Your task to perform on an android device: toggle javascript in the chrome app Image 0: 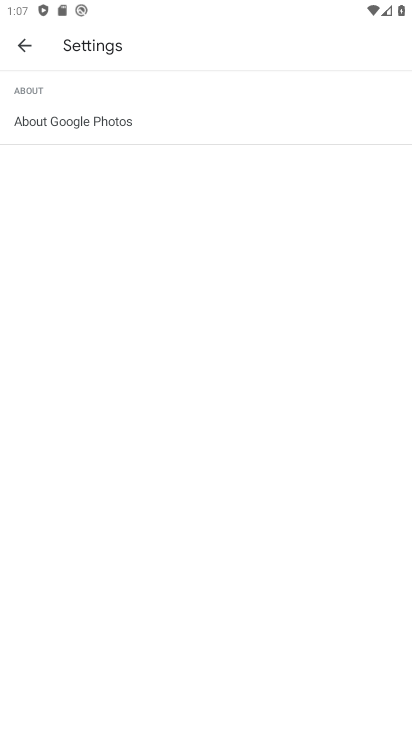
Step 0: press home button
Your task to perform on an android device: toggle javascript in the chrome app Image 1: 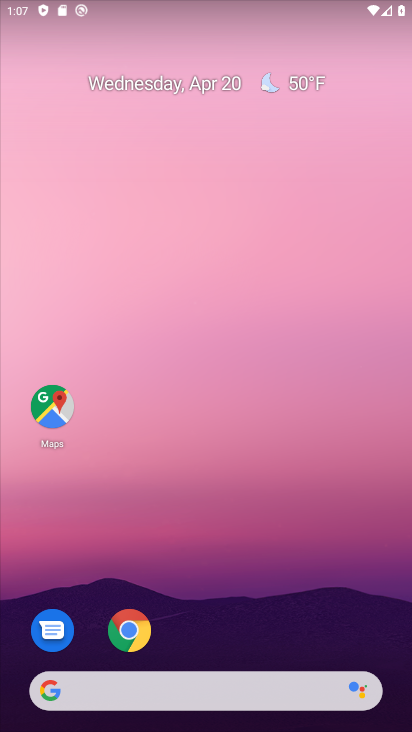
Step 1: click (123, 628)
Your task to perform on an android device: toggle javascript in the chrome app Image 2: 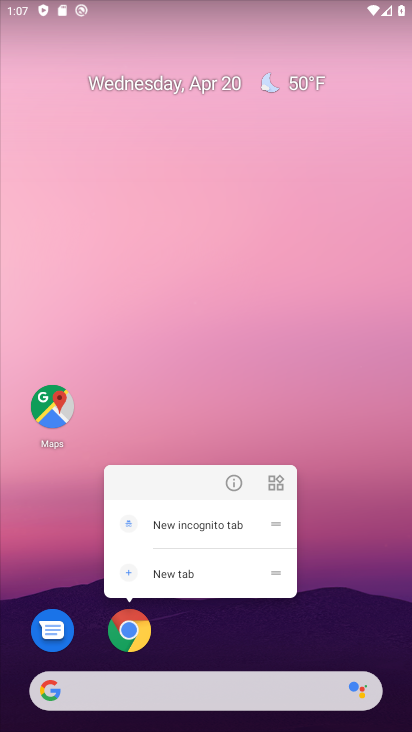
Step 2: click (123, 633)
Your task to perform on an android device: toggle javascript in the chrome app Image 3: 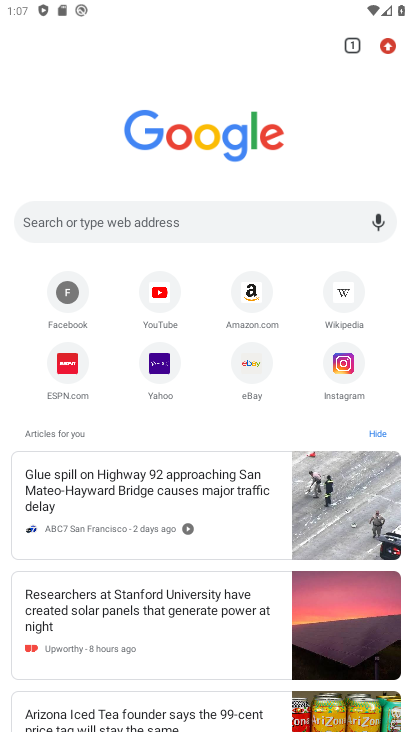
Step 3: click (383, 45)
Your task to perform on an android device: toggle javascript in the chrome app Image 4: 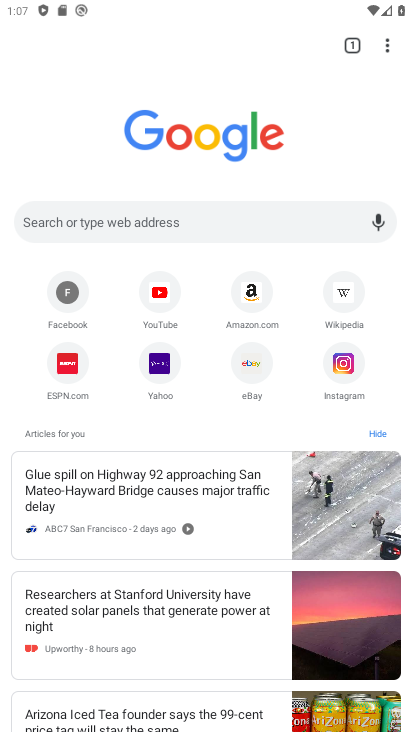
Step 4: click (383, 45)
Your task to perform on an android device: toggle javascript in the chrome app Image 5: 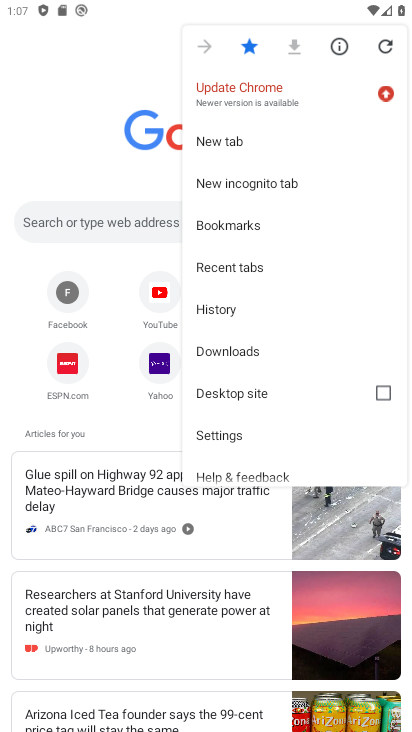
Step 5: click (241, 440)
Your task to perform on an android device: toggle javascript in the chrome app Image 6: 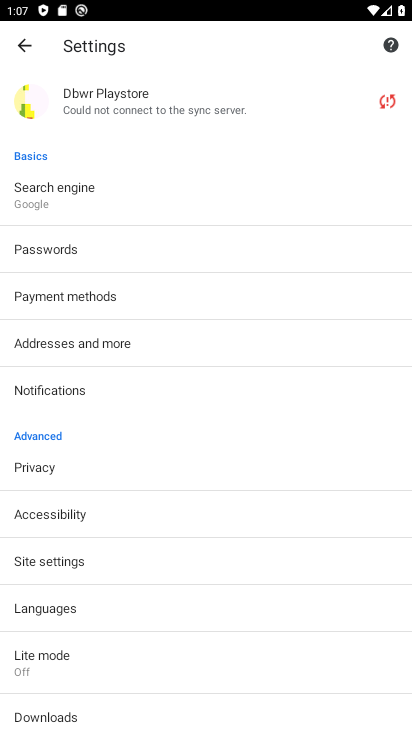
Step 6: click (65, 560)
Your task to perform on an android device: toggle javascript in the chrome app Image 7: 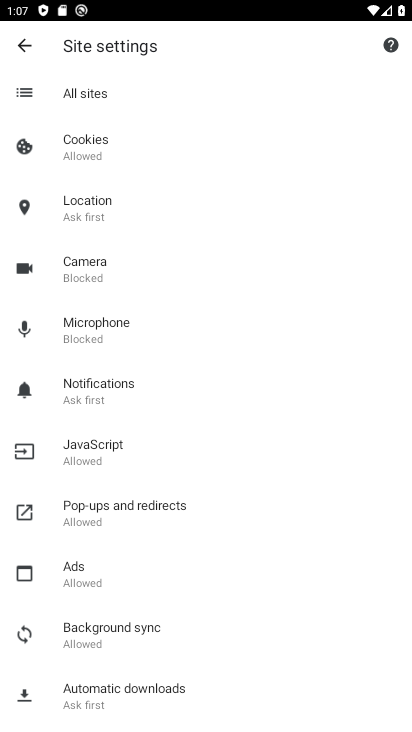
Step 7: click (119, 445)
Your task to perform on an android device: toggle javascript in the chrome app Image 8: 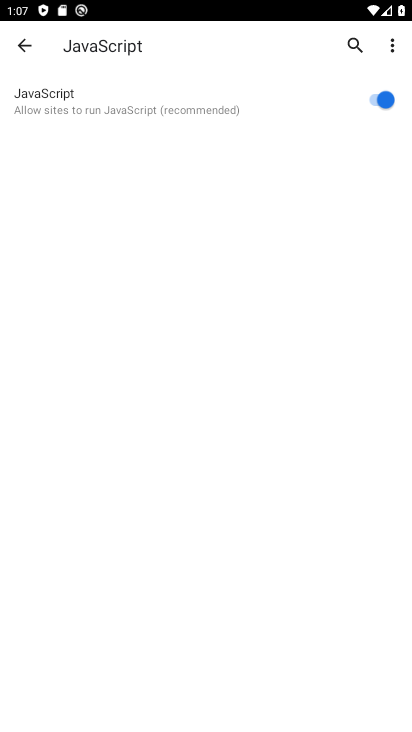
Step 8: click (383, 97)
Your task to perform on an android device: toggle javascript in the chrome app Image 9: 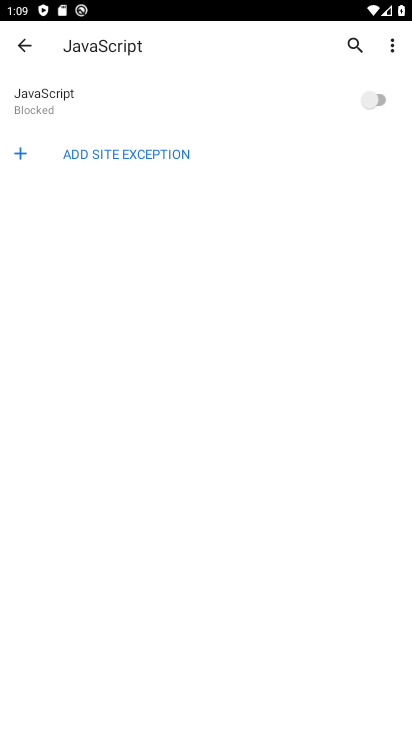
Step 9: task complete